Your task to perform on an android device: check battery use Image 0: 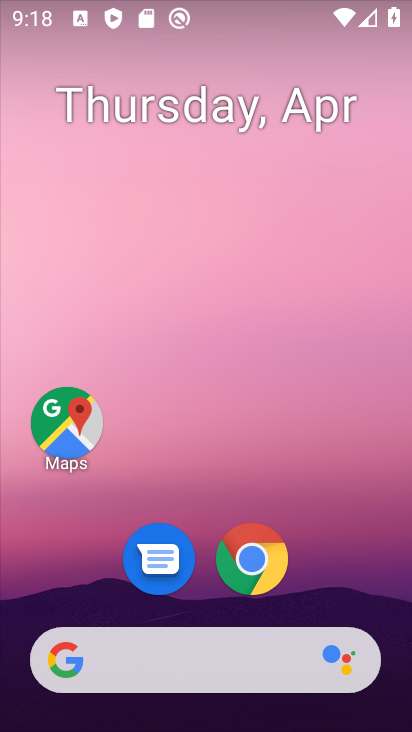
Step 0: drag from (310, 712) to (325, 95)
Your task to perform on an android device: check battery use Image 1: 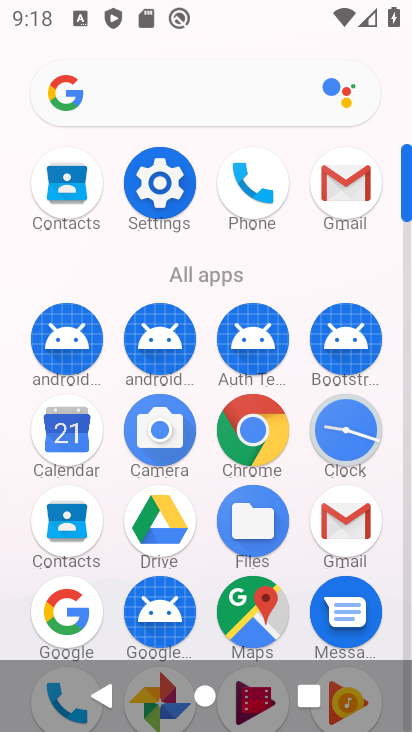
Step 1: click (179, 181)
Your task to perform on an android device: check battery use Image 2: 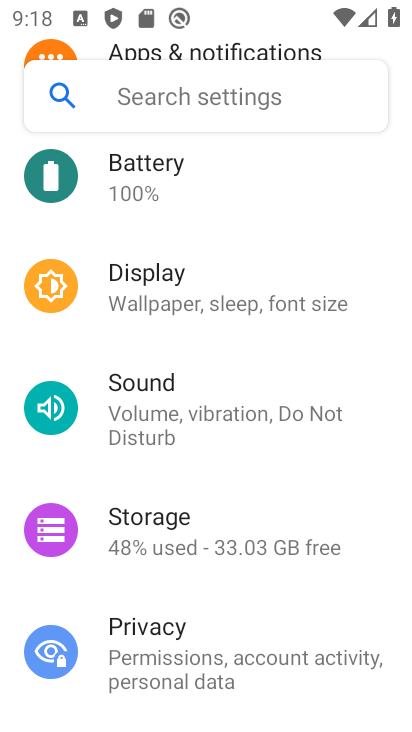
Step 2: click (179, 181)
Your task to perform on an android device: check battery use Image 3: 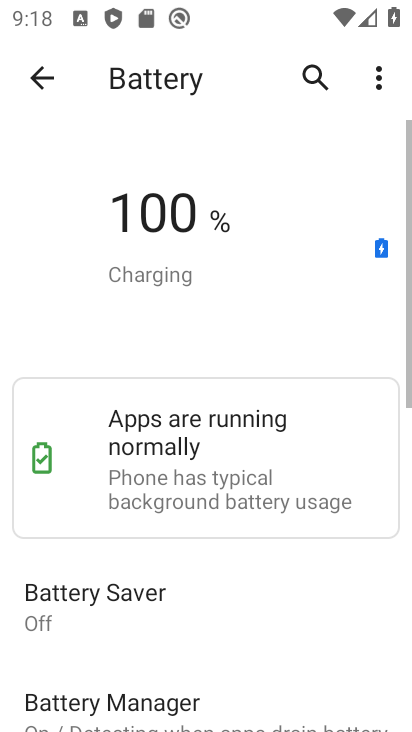
Step 3: click (128, 234)
Your task to perform on an android device: check battery use Image 4: 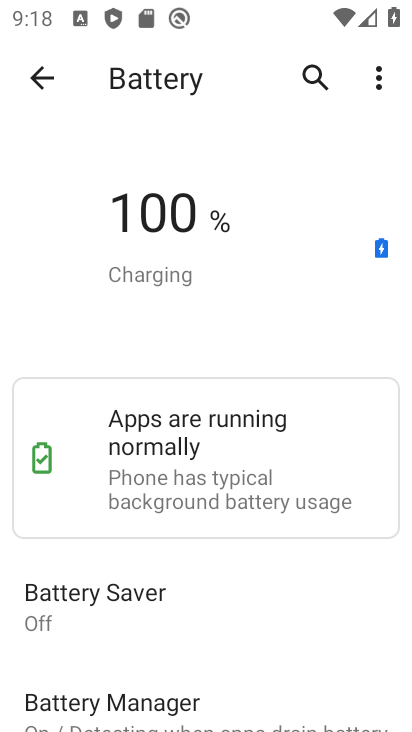
Step 4: click (384, 75)
Your task to perform on an android device: check battery use Image 5: 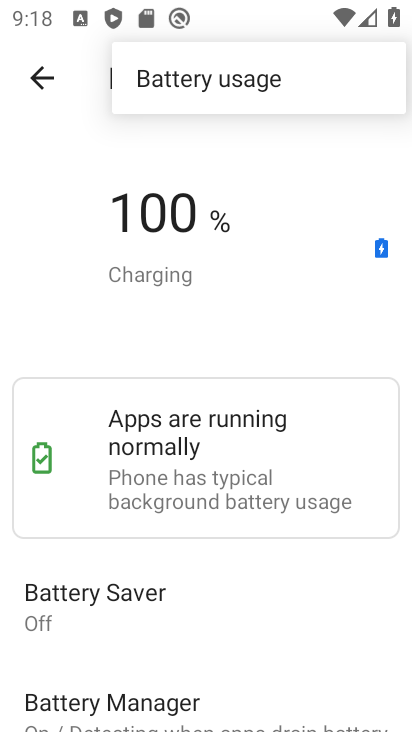
Step 5: click (340, 81)
Your task to perform on an android device: check battery use Image 6: 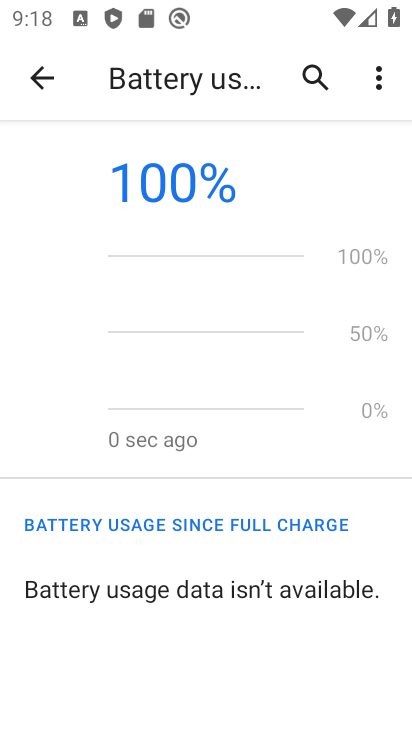
Step 6: task complete